Your task to perform on an android device: Add "dell alienware" to the cart on ebay.com, then select checkout. Image 0: 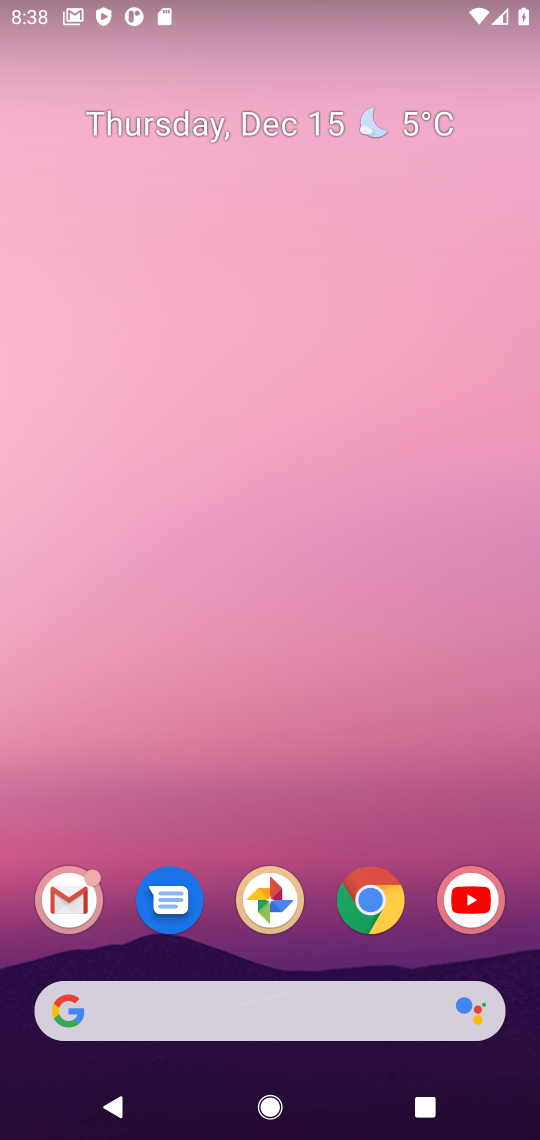
Step 0: click (378, 899)
Your task to perform on an android device: Add "dell alienware" to the cart on ebay.com, then select checkout. Image 1: 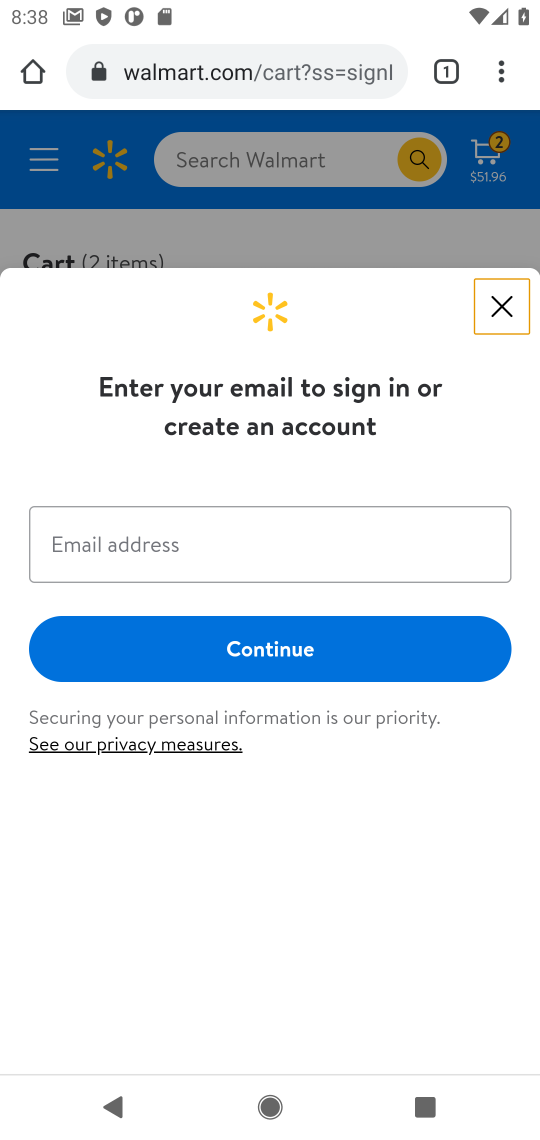
Step 1: click (200, 84)
Your task to perform on an android device: Add "dell alienware" to the cart on ebay.com, then select checkout. Image 2: 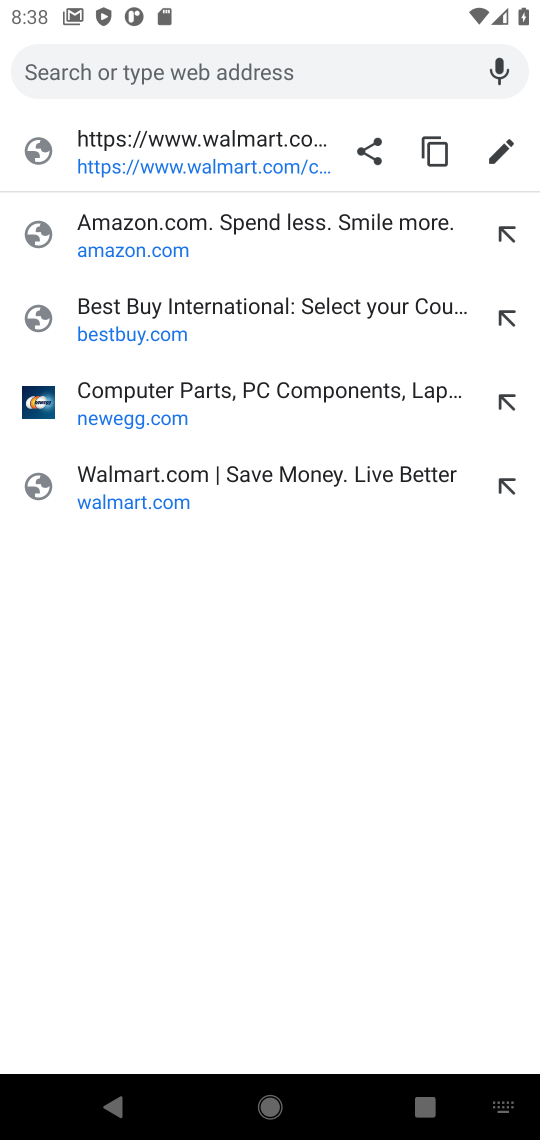
Step 2: type "ebay.com"
Your task to perform on an android device: Add "dell alienware" to the cart on ebay.com, then select checkout. Image 3: 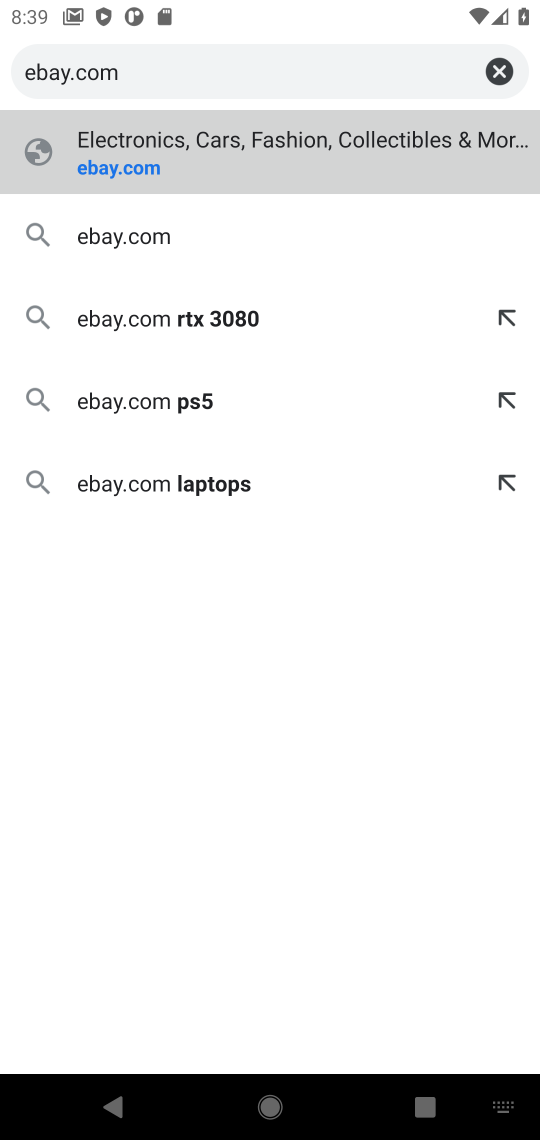
Step 3: click (359, 158)
Your task to perform on an android device: Add "dell alienware" to the cart on ebay.com, then select checkout. Image 4: 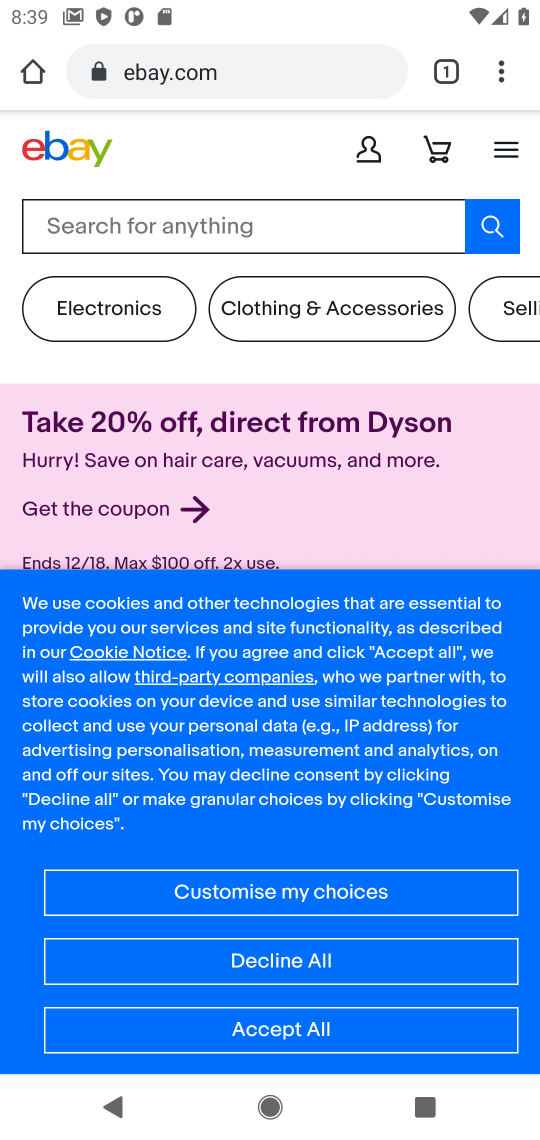
Step 4: click (265, 1030)
Your task to perform on an android device: Add "dell alienware" to the cart on ebay.com, then select checkout. Image 5: 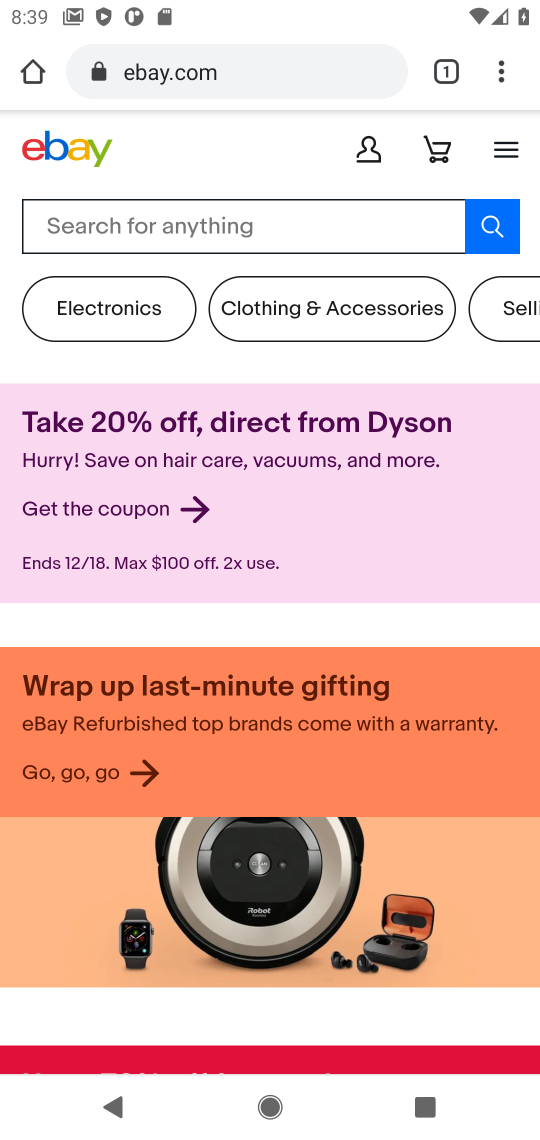
Step 5: click (190, 227)
Your task to perform on an android device: Add "dell alienware" to the cart on ebay.com, then select checkout. Image 6: 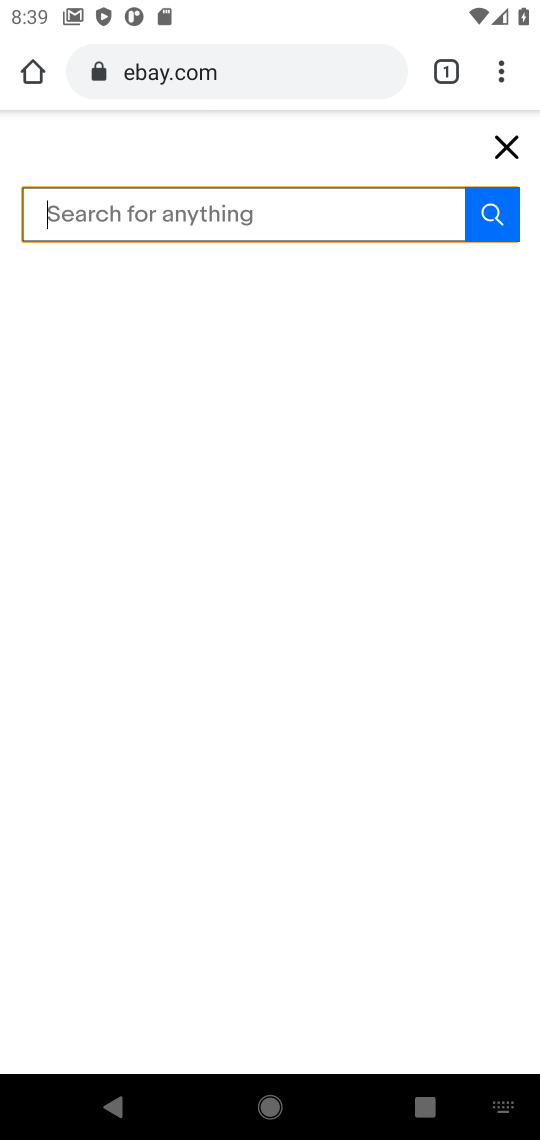
Step 6: type "dell alienware"
Your task to perform on an android device: Add "dell alienware" to the cart on ebay.com, then select checkout. Image 7: 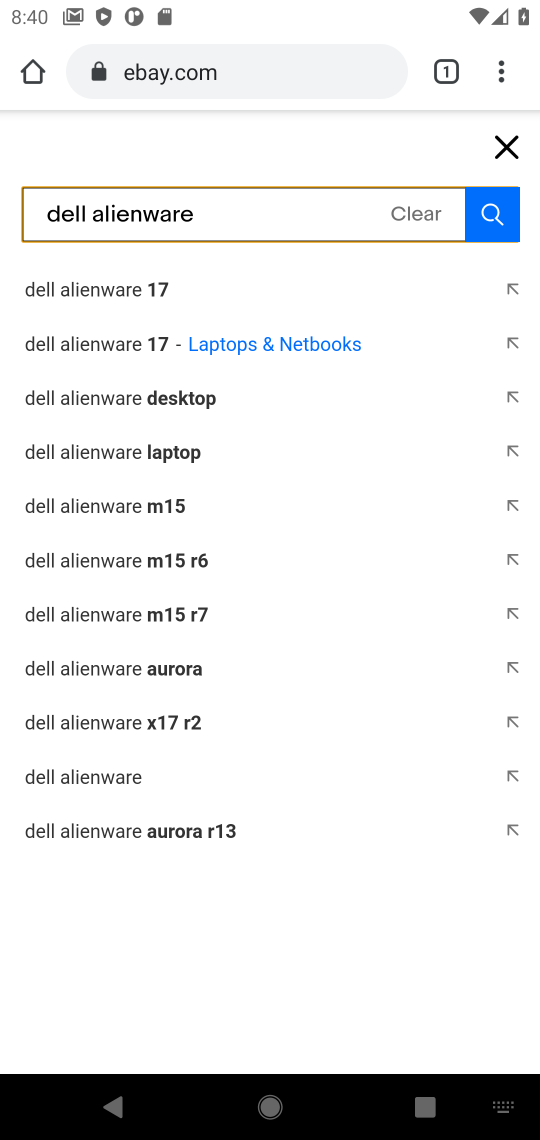
Step 7: click (491, 214)
Your task to perform on an android device: Add "dell alienware" to the cart on ebay.com, then select checkout. Image 8: 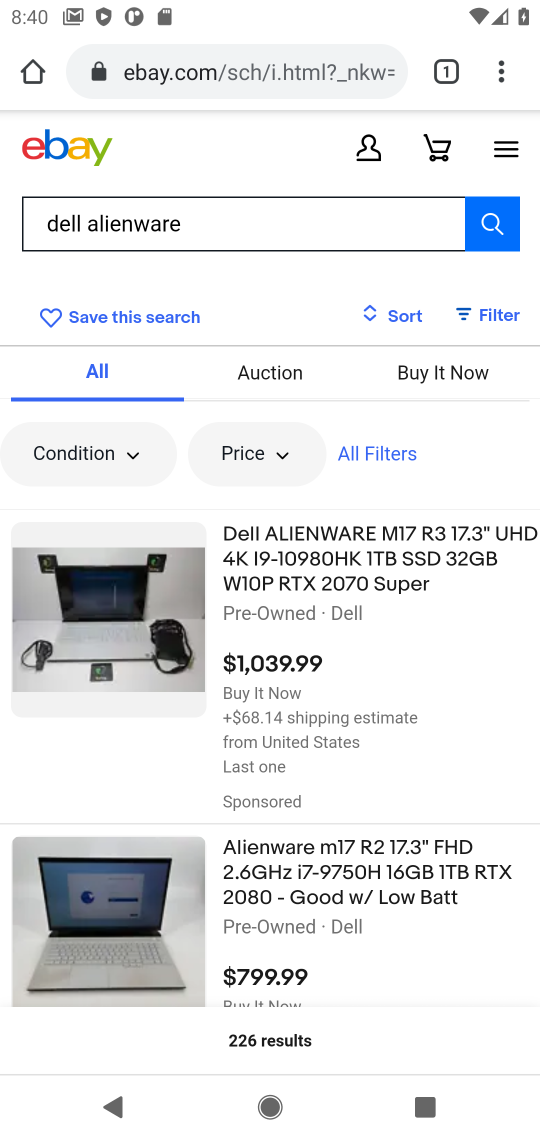
Step 8: click (253, 578)
Your task to perform on an android device: Add "dell alienware" to the cart on ebay.com, then select checkout. Image 9: 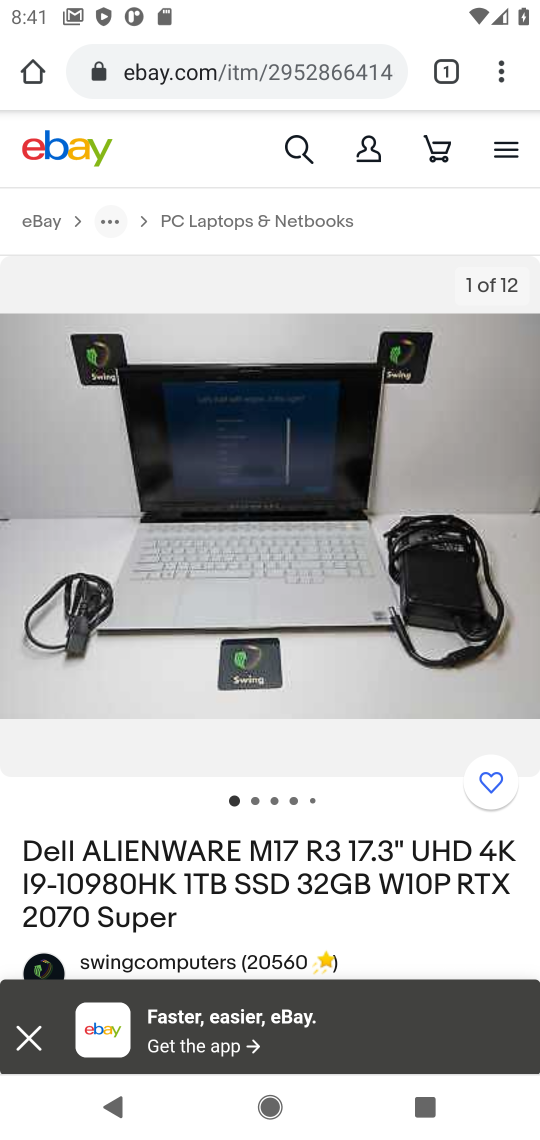
Step 9: drag from (346, 937) to (354, 425)
Your task to perform on an android device: Add "dell alienware" to the cart on ebay.com, then select checkout. Image 10: 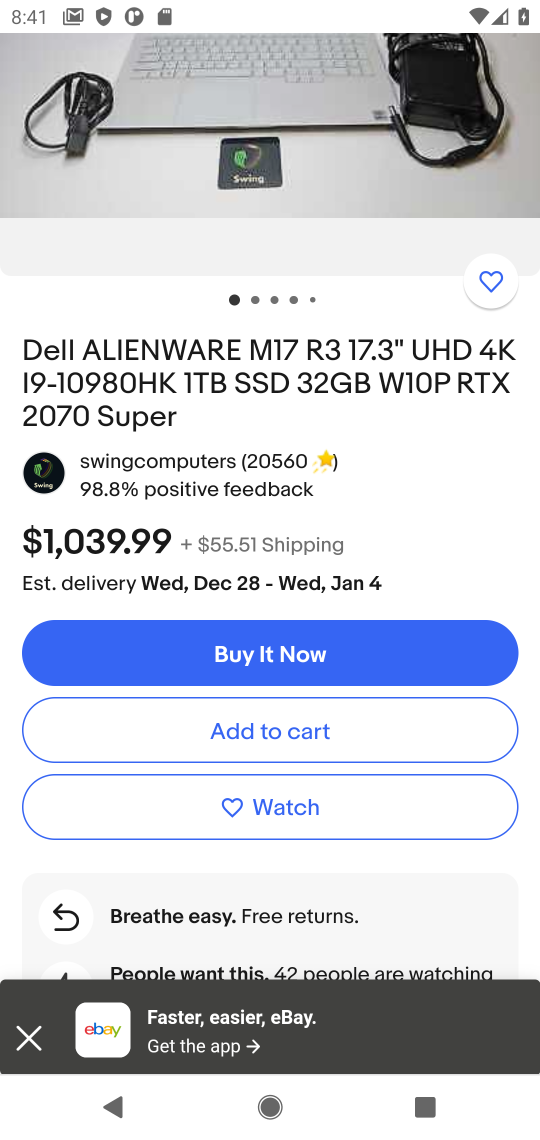
Step 10: click (219, 746)
Your task to perform on an android device: Add "dell alienware" to the cart on ebay.com, then select checkout. Image 11: 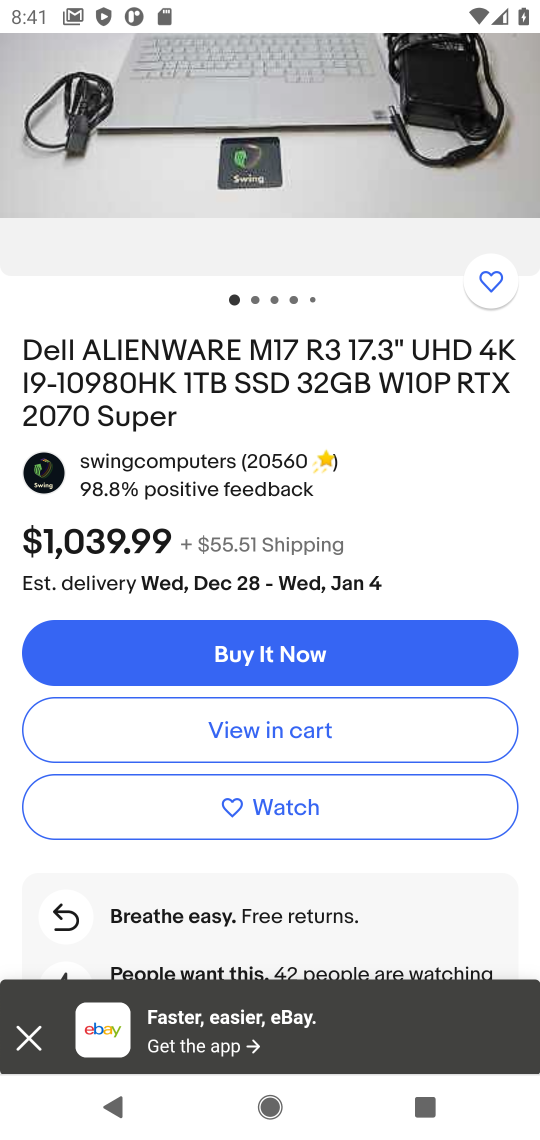
Step 11: click (219, 746)
Your task to perform on an android device: Add "dell alienware" to the cart on ebay.com, then select checkout. Image 12: 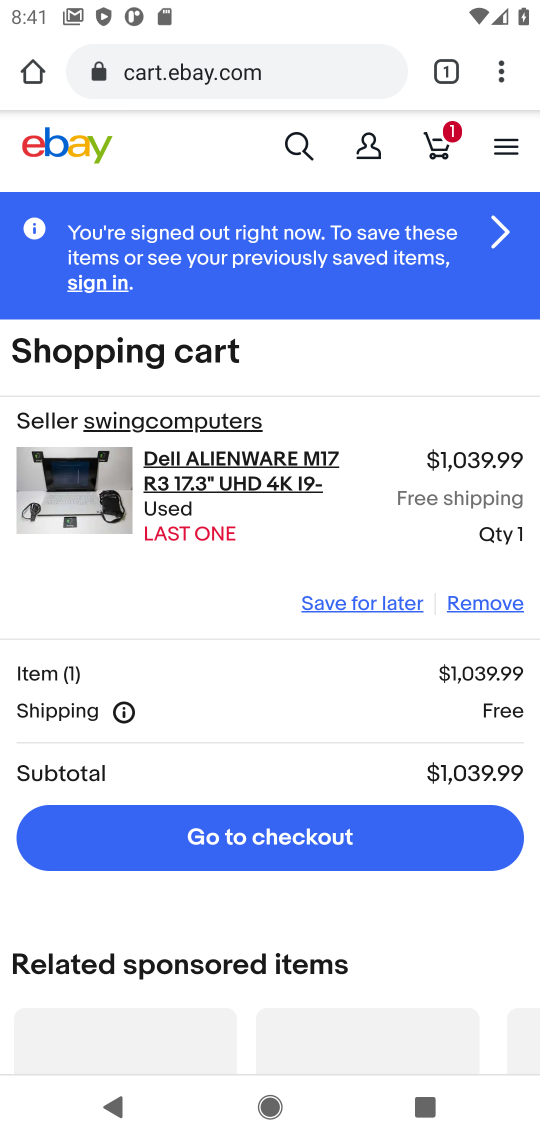
Step 12: click (189, 820)
Your task to perform on an android device: Add "dell alienware" to the cart on ebay.com, then select checkout. Image 13: 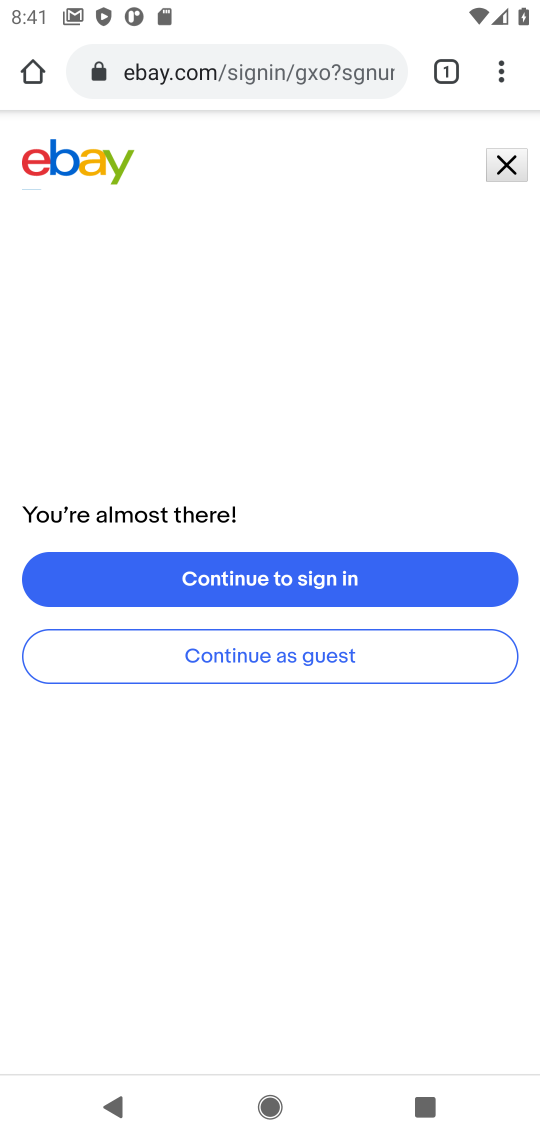
Step 13: click (355, 561)
Your task to perform on an android device: Add "dell alienware" to the cart on ebay.com, then select checkout. Image 14: 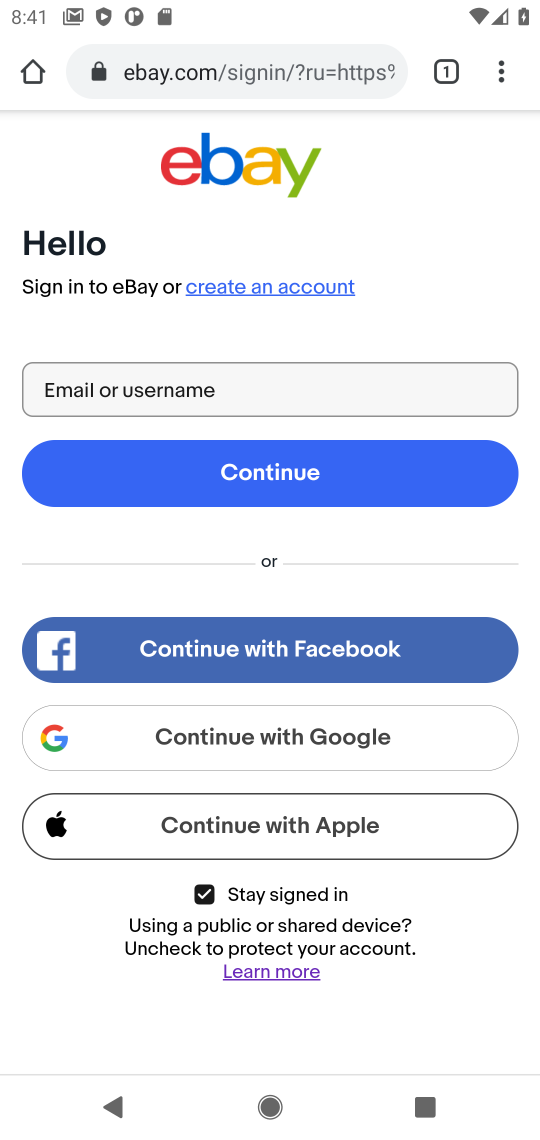
Step 14: task complete